Your task to perform on an android device: turn on translation in the chrome app Image 0: 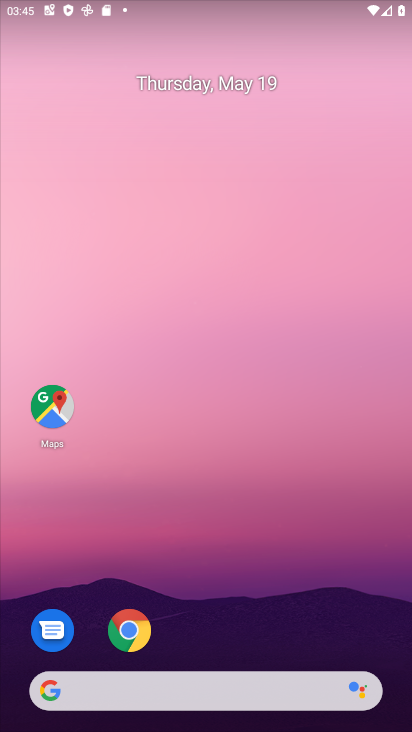
Step 0: click (130, 631)
Your task to perform on an android device: turn on translation in the chrome app Image 1: 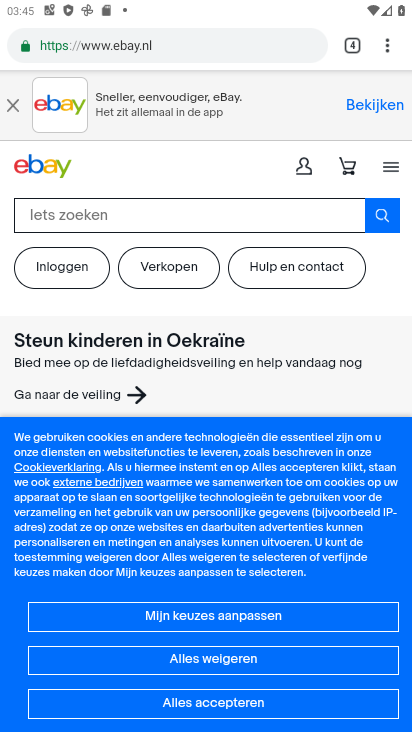
Step 1: click (382, 49)
Your task to perform on an android device: turn on translation in the chrome app Image 2: 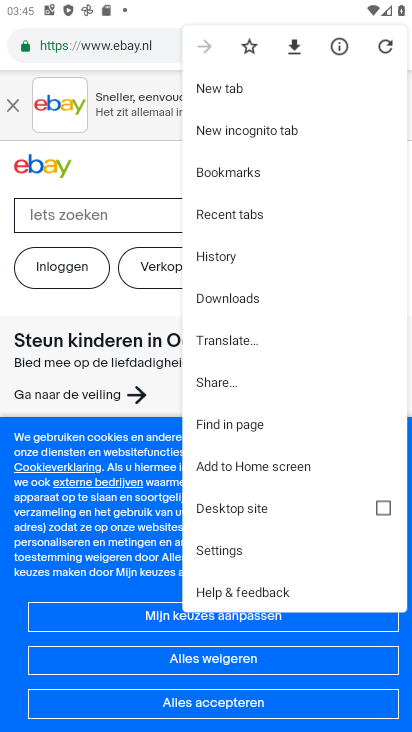
Step 2: click (223, 548)
Your task to perform on an android device: turn on translation in the chrome app Image 3: 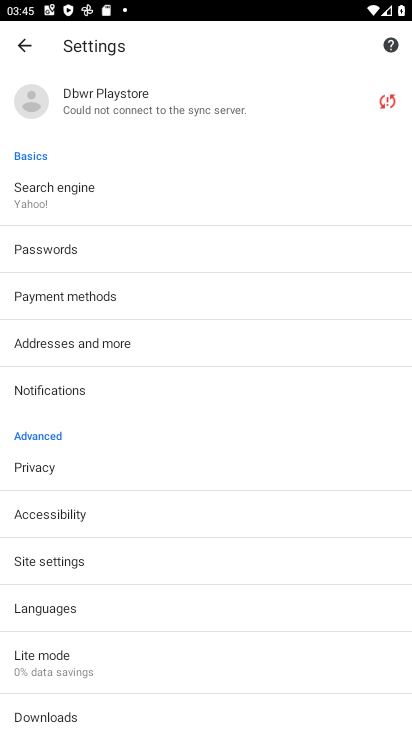
Step 3: click (47, 607)
Your task to perform on an android device: turn on translation in the chrome app Image 4: 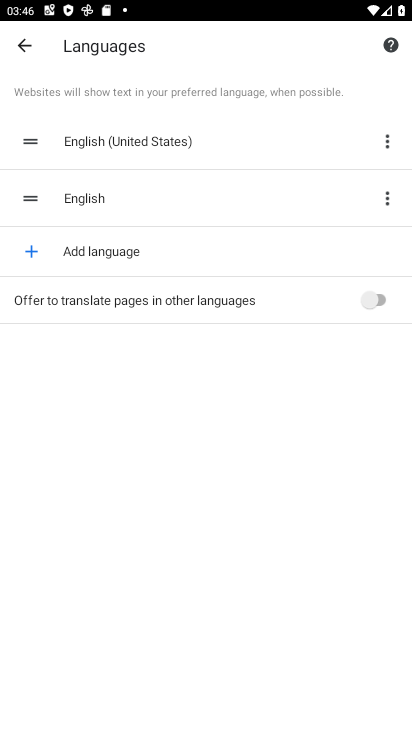
Step 4: click (382, 297)
Your task to perform on an android device: turn on translation in the chrome app Image 5: 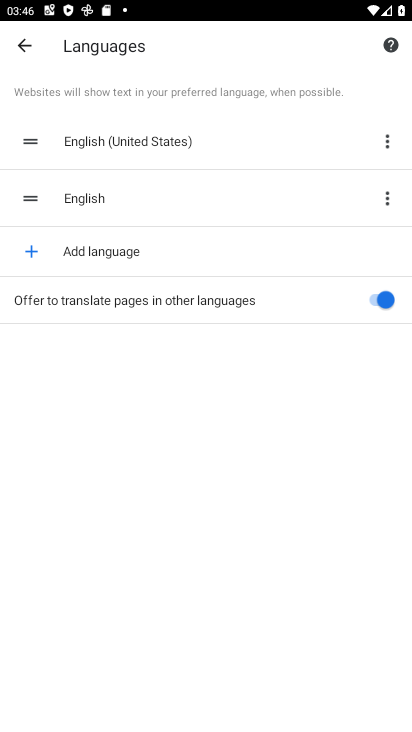
Step 5: task complete